Your task to perform on an android device: Go to CNN.com Image 0: 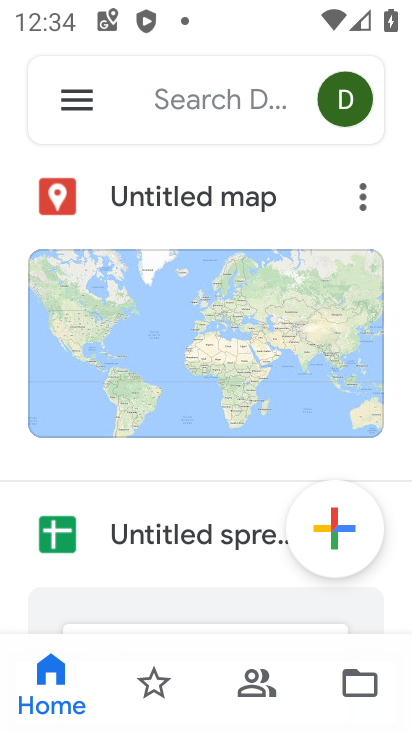
Step 0: press home button
Your task to perform on an android device: Go to CNN.com Image 1: 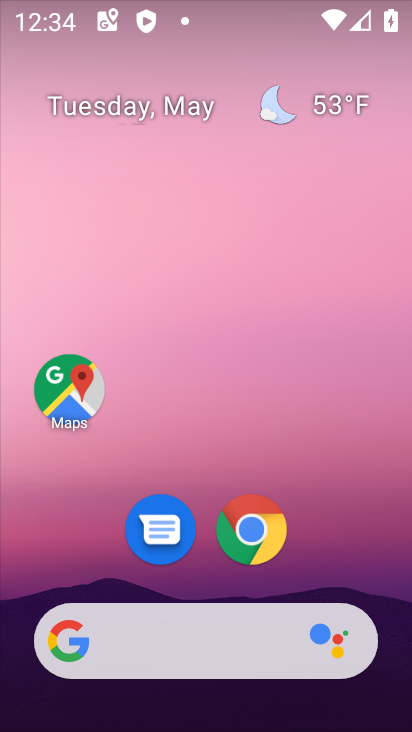
Step 1: click (249, 522)
Your task to perform on an android device: Go to CNN.com Image 2: 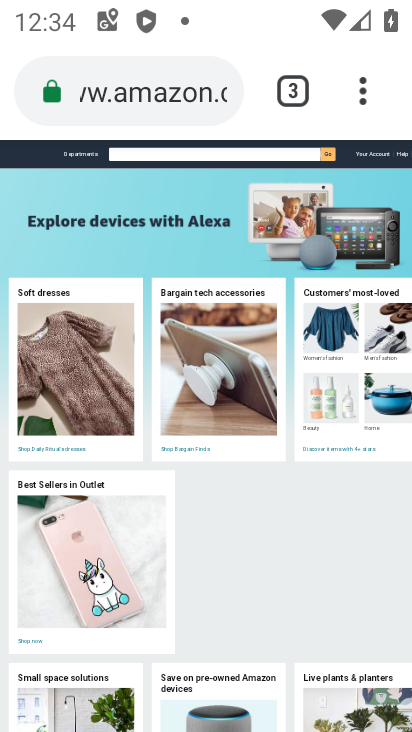
Step 2: click (364, 103)
Your task to perform on an android device: Go to CNN.com Image 3: 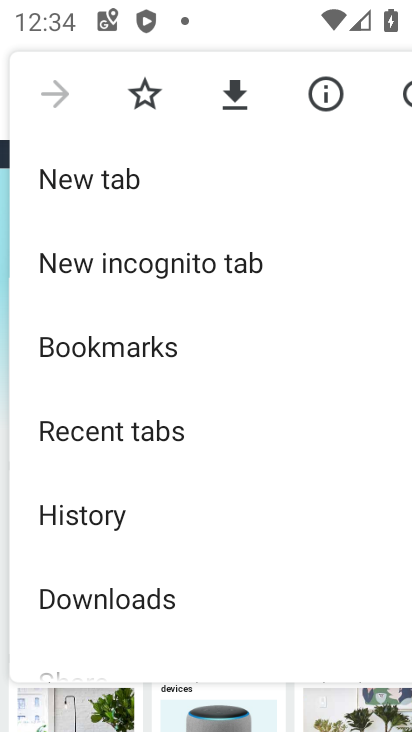
Step 3: click (107, 180)
Your task to perform on an android device: Go to CNN.com Image 4: 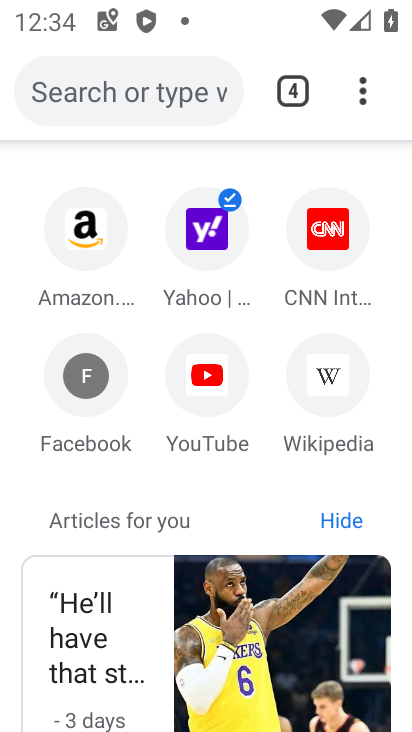
Step 4: click (126, 90)
Your task to perform on an android device: Go to CNN.com Image 5: 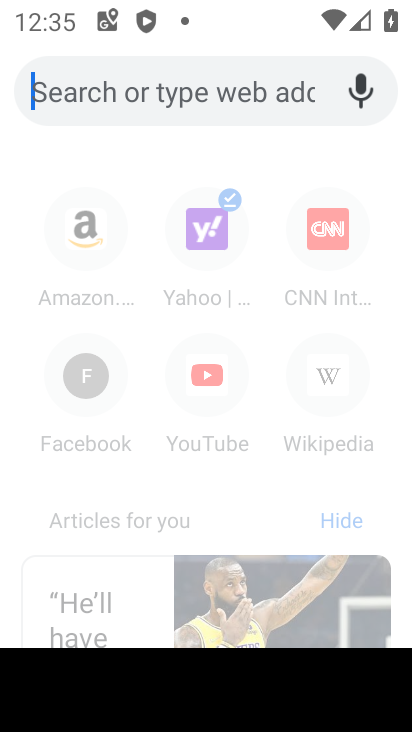
Step 5: type "CNN.com"
Your task to perform on an android device: Go to CNN.com Image 6: 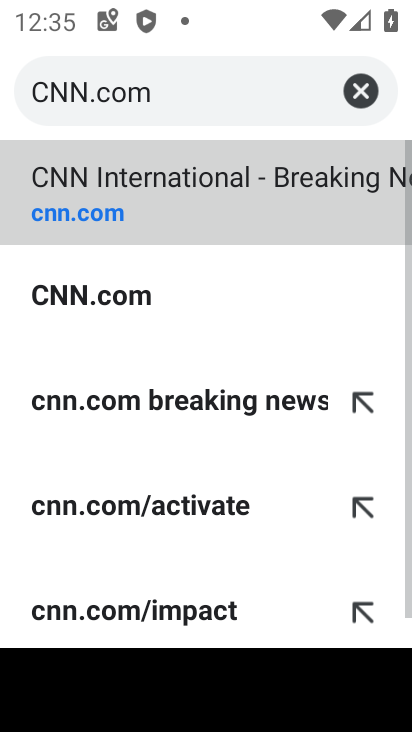
Step 6: click (151, 191)
Your task to perform on an android device: Go to CNN.com Image 7: 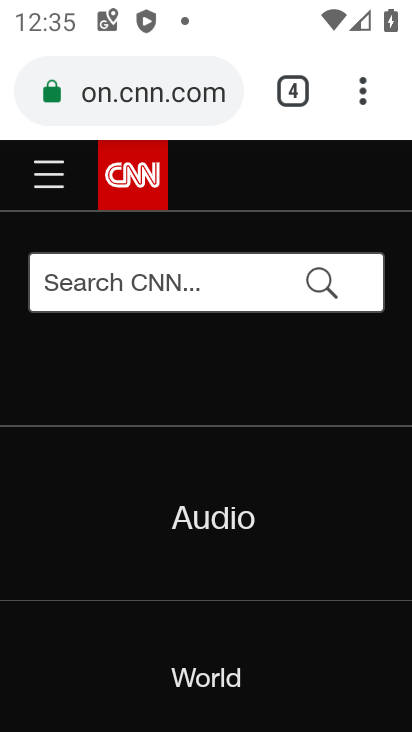
Step 7: task complete